Your task to perform on an android device: remove spam from my inbox in the gmail app Image 0: 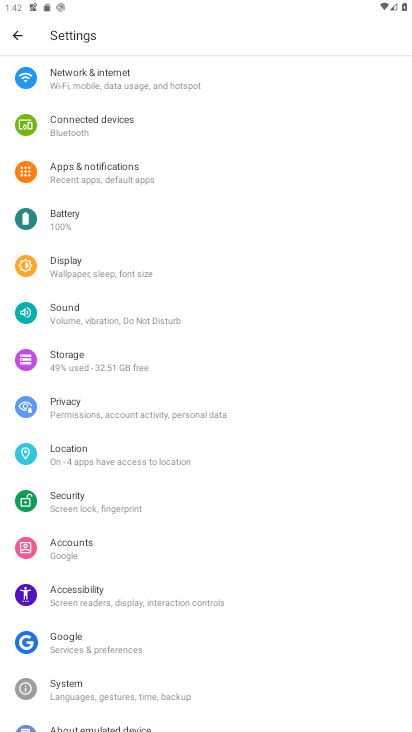
Step 0: press home button
Your task to perform on an android device: remove spam from my inbox in the gmail app Image 1: 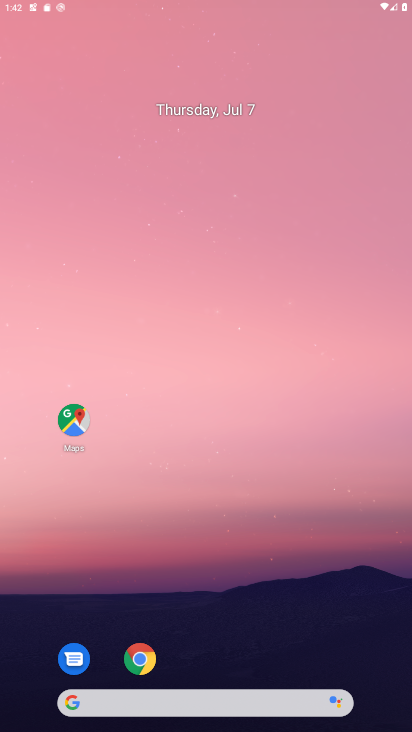
Step 1: drag from (131, 643) to (256, 72)
Your task to perform on an android device: remove spam from my inbox in the gmail app Image 2: 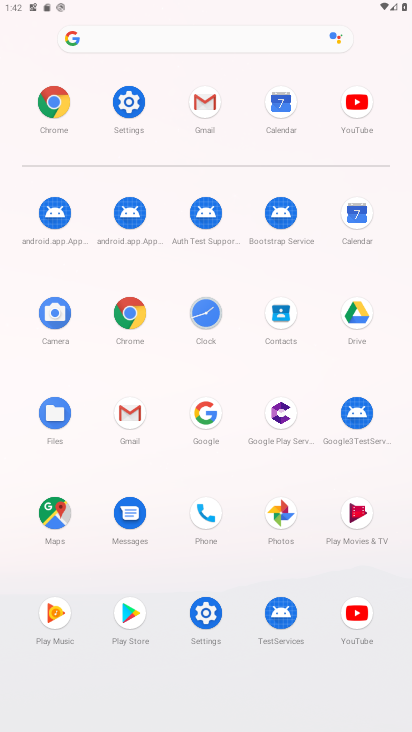
Step 2: click (207, 109)
Your task to perform on an android device: remove spam from my inbox in the gmail app Image 3: 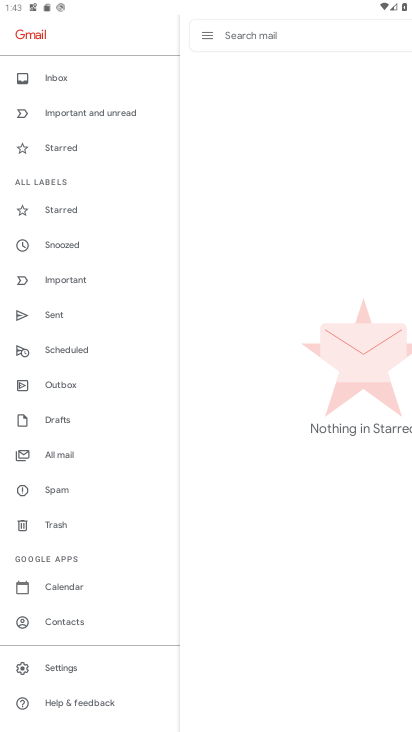
Step 3: drag from (135, 644) to (177, 207)
Your task to perform on an android device: remove spam from my inbox in the gmail app Image 4: 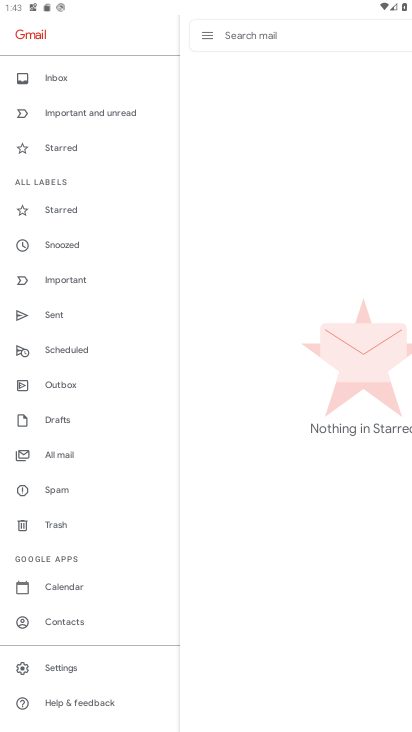
Step 4: click (63, 496)
Your task to perform on an android device: remove spam from my inbox in the gmail app Image 5: 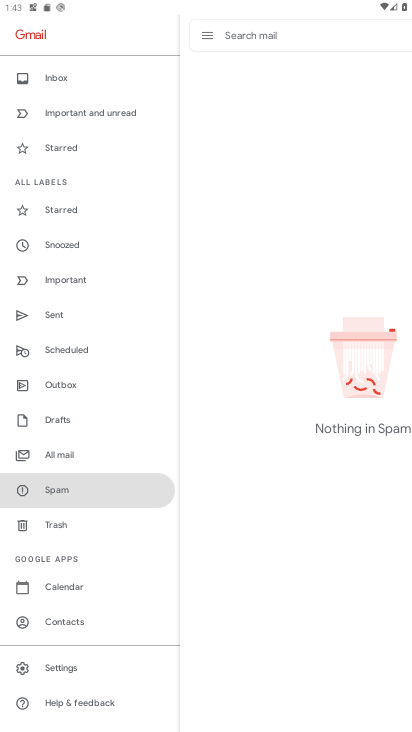
Step 5: task complete